Your task to perform on an android device: Open Wikipedia Image 0: 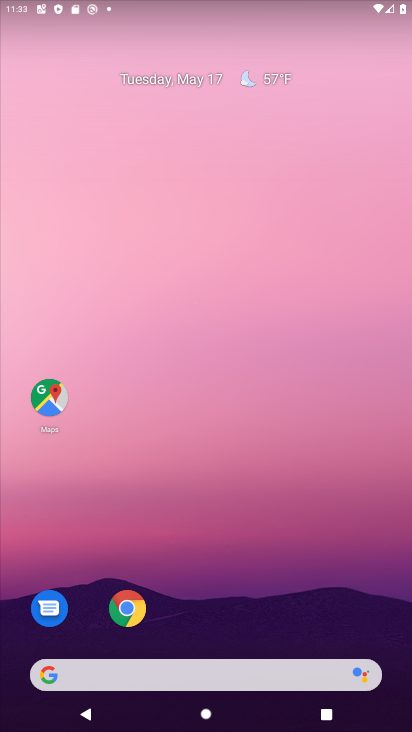
Step 0: click (124, 613)
Your task to perform on an android device: Open Wikipedia Image 1: 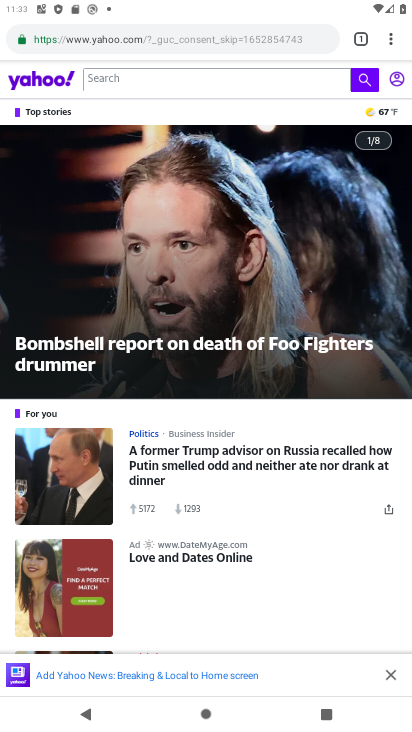
Step 1: click (392, 38)
Your task to perform on an android device: Open Wikipedia Image 2: 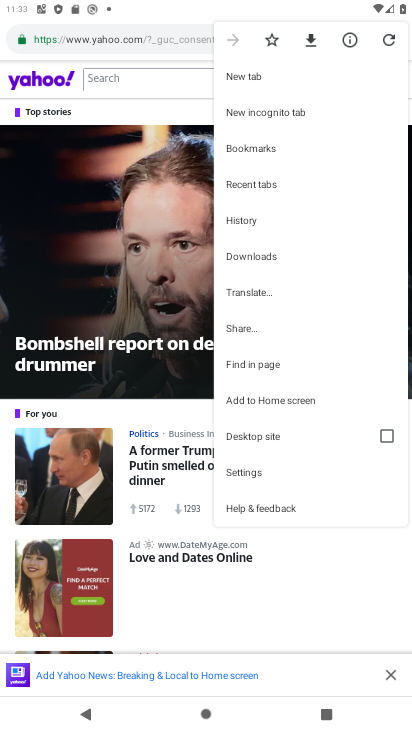
Step 2: click (241, 72)
Your task to perform on an android device: Open Wikipedia Image 3: 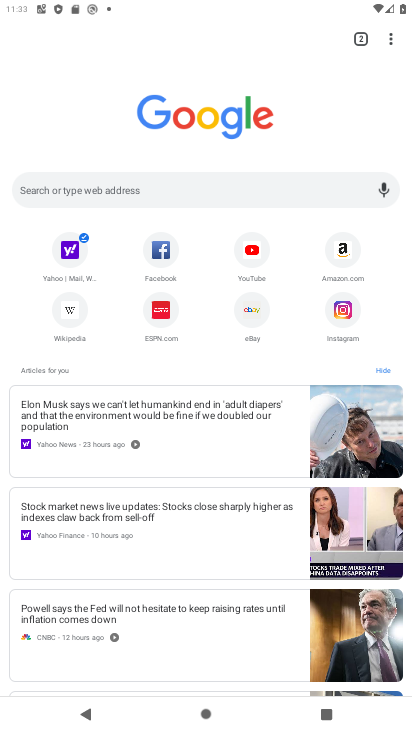
Step 3: click (64, 309)
Your task to perform on an android device: Open Wikipedia Image 4: 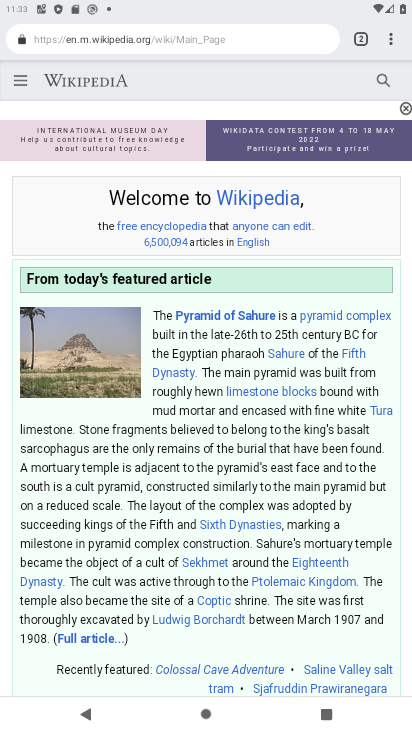
Step 4: task complete